Your task to perform on an android device: Is it going to rain this weekend? Image 0: 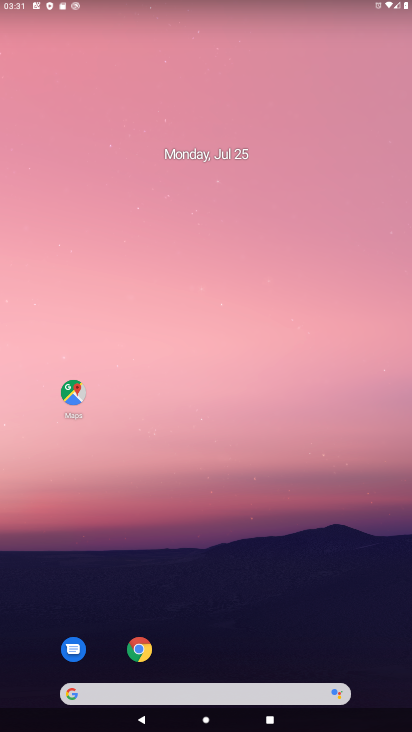
Step 0: drag from (14, 273) to (388, 296)
Your task to perform on an android device: Is it going to rain this weekend? Image 1: 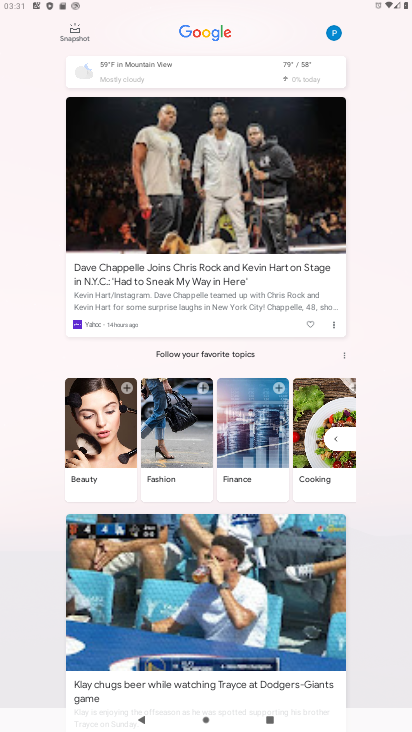
Step 1: click (292, 64)
Your task to perform on an android device: Is it going to rain this weekend? Image 2: 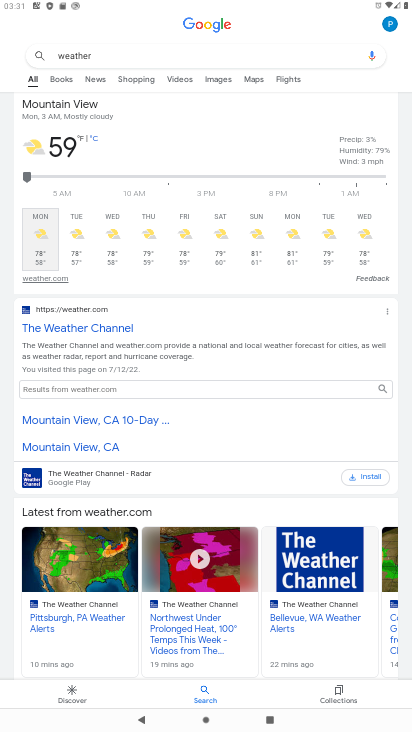
Step 2: task complete